Your task to perform on an android device: Go to Yahoo.com Image 0: 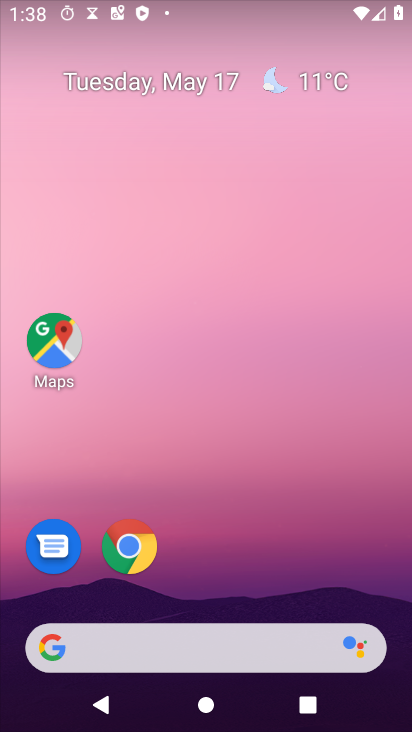
Step 0: click (124, 564)
Your task to perform on an android device: Go to Yahoo.com Image 1: 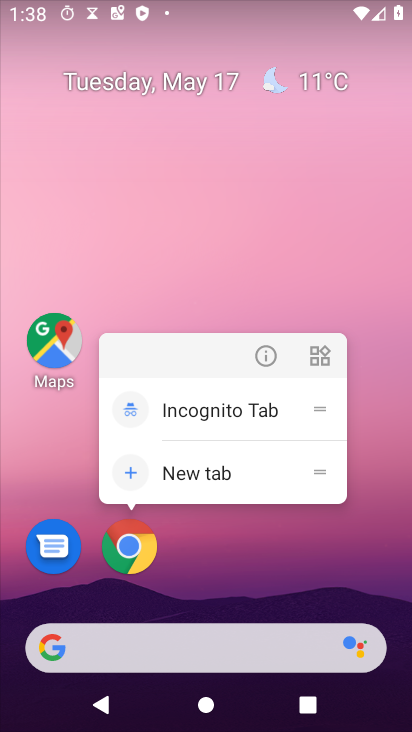
Step 1: click (128, 554)
Your task to perform on an android device: Go to Yahoo.com Image 2: 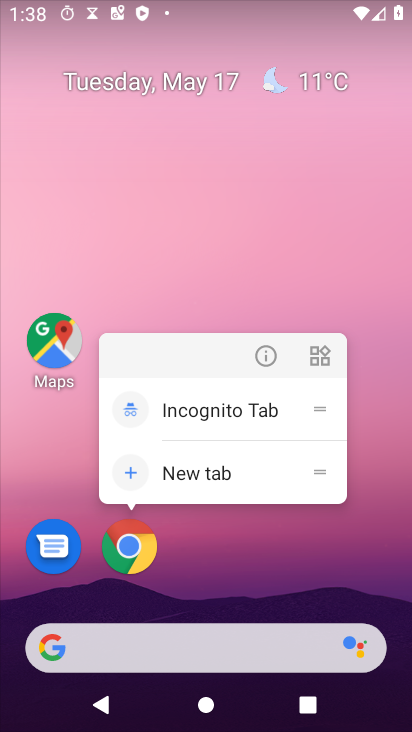
Step 2: click (128, 554)
Your task to perform on an android device: Go to Yahoo.com Image 3: 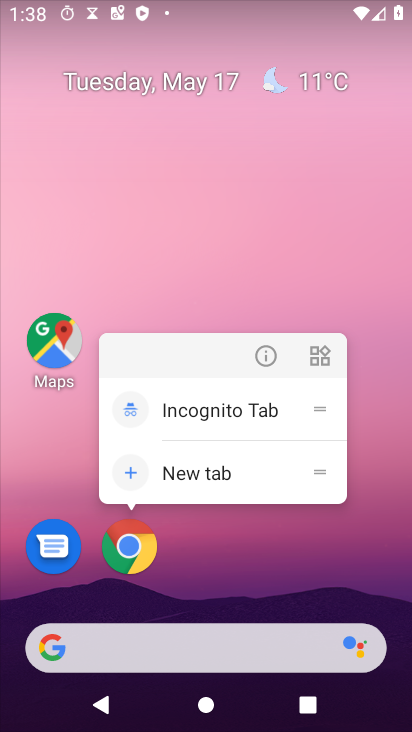
Step 3: click (134, 556)
Your task to perform on an android device: Go to Yahoo.com Image 4: 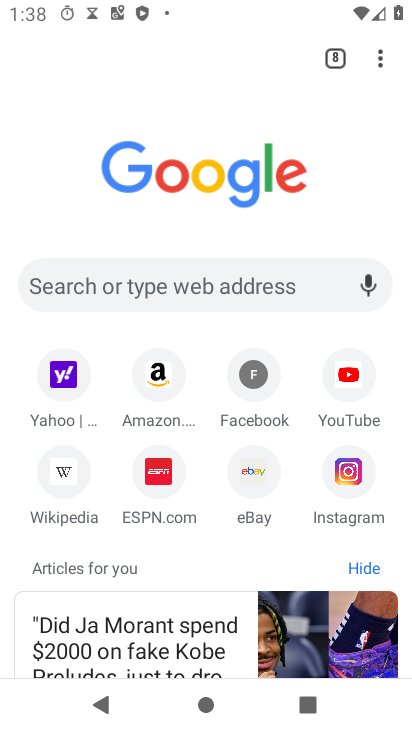
Step 4: click (62, 380)
Your task to perform on an android device: Go to Yahoo.com Image 5: 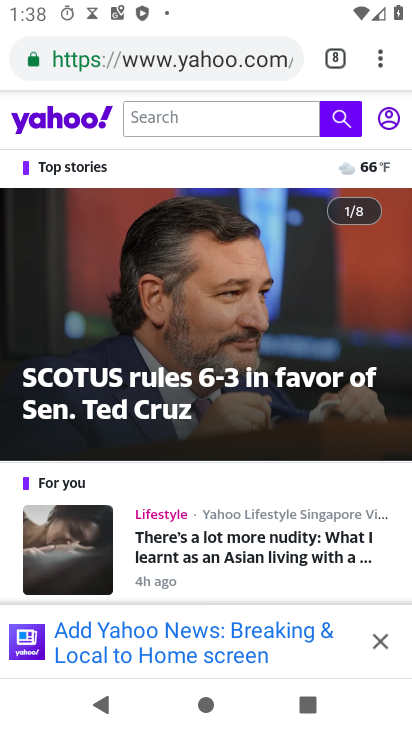
Step 5: task complete